Your task to perform on an android device: add a contact Image 0: 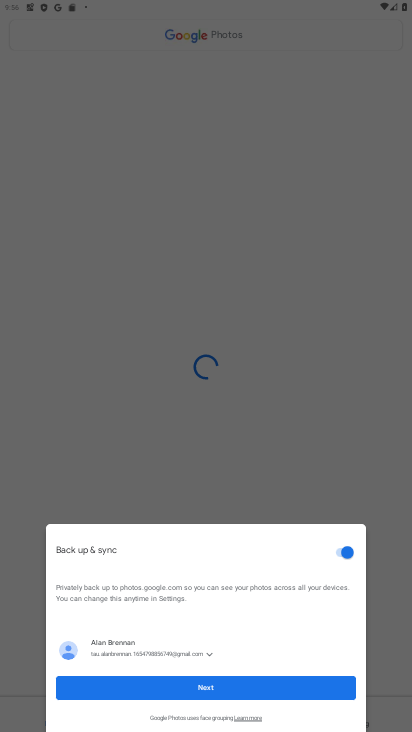
Step 0: press home button
Your task to perform on an android device: add a contact Image 1: 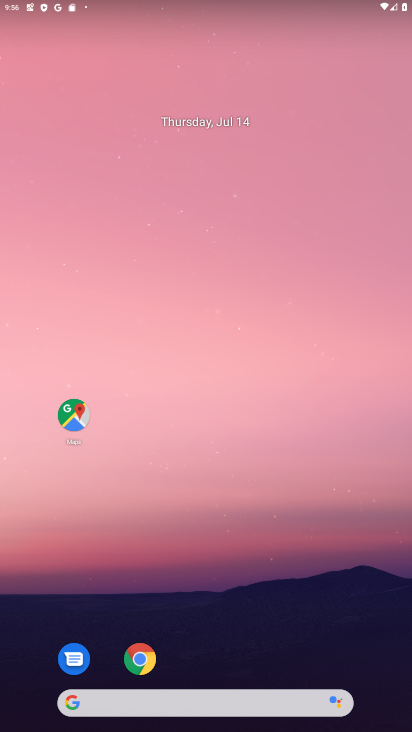
Step 1: drag from (224, 629) to (178, 121)
Your task to perform on an android device: add a contact Image 2: 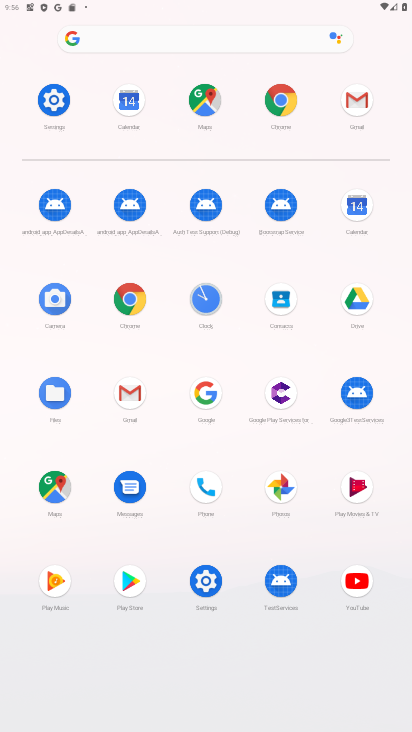
Step 2: click (278, 296)
Your task to perform on an android device: add a contact Image 3: 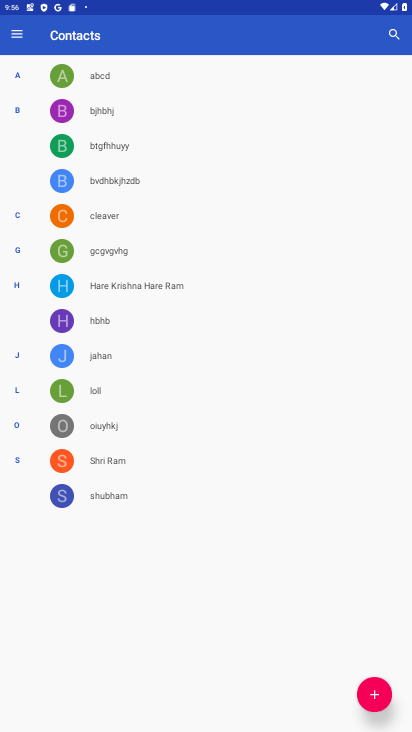
Step 3: click (377, 690)
Your task to perform on an android device: add a contact Image 4: 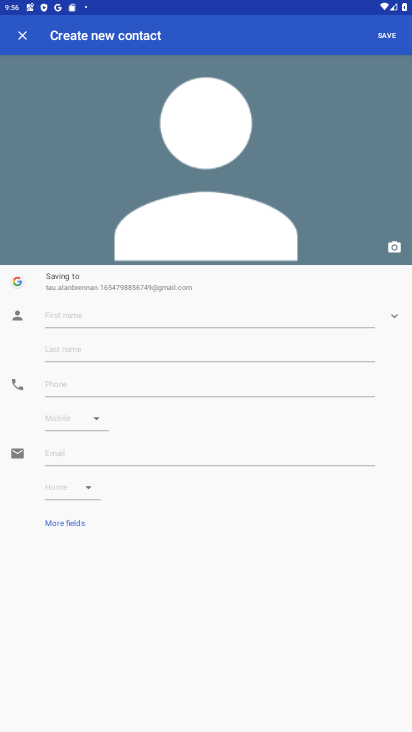
Step 4: click (260, 320)
Your task to perform on an android device: add a contact Image 5: 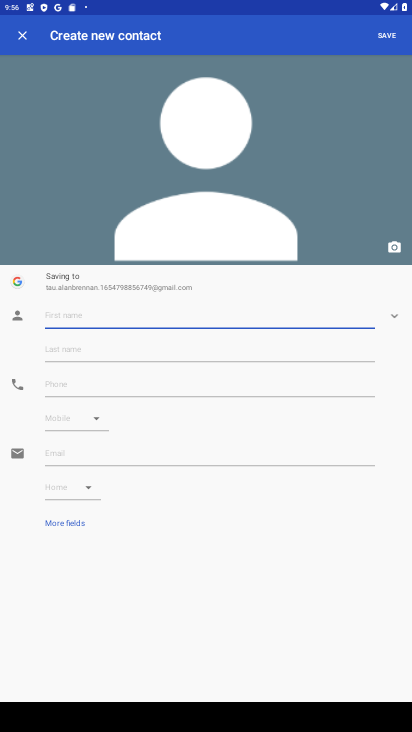
Step 5: type "prmeshwar"
Your task to perform on an android device: add a contact Image 6: 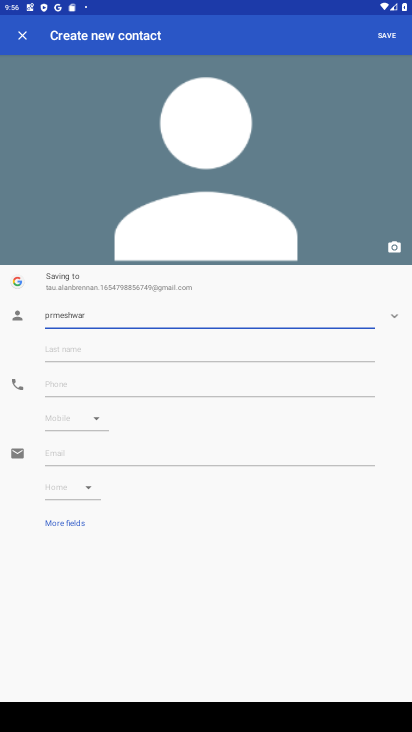
Step 6: click (379, 38)
Your task to perform on an android device: add a contact Image 7: 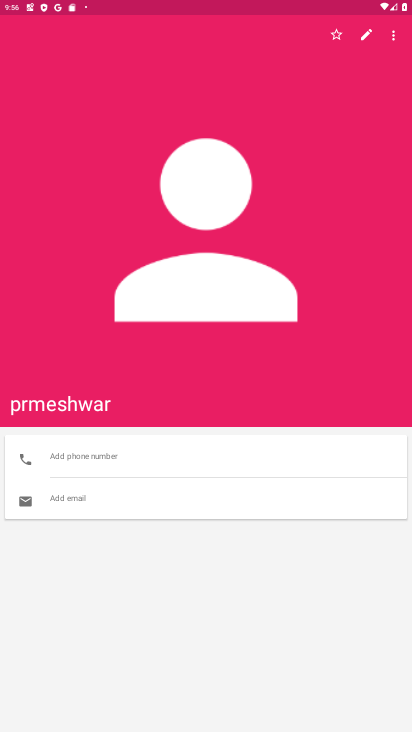
Step 7: task complete